Your task to perform on an android device: Search for Italian restaurants on Maps Image 0: 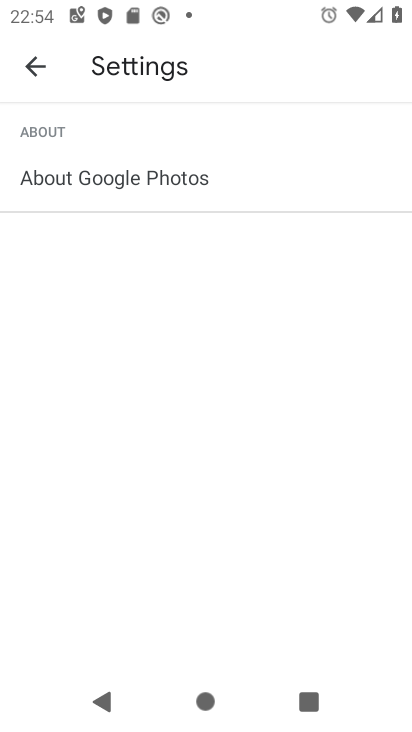
Step 0: press home button
Your task to perform on an android device: Search for Italian restaurants on Maps Image 1: 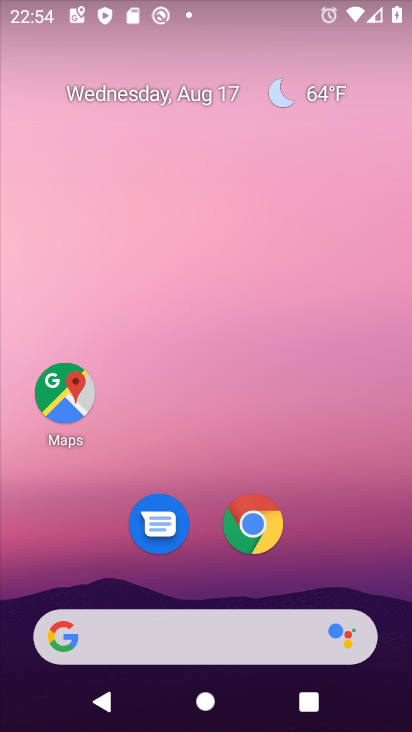
Step 1: click (51, 388)
Your task to perform on an android device: Search for Italian restaurants on Maps Image 2: 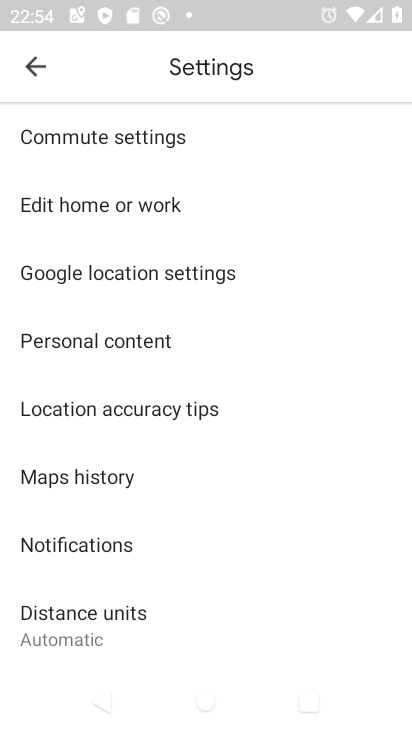
Step 2: click (37, 62)
Your task to perform on an android device: Search for Italian restaurants on Maps Image 3: 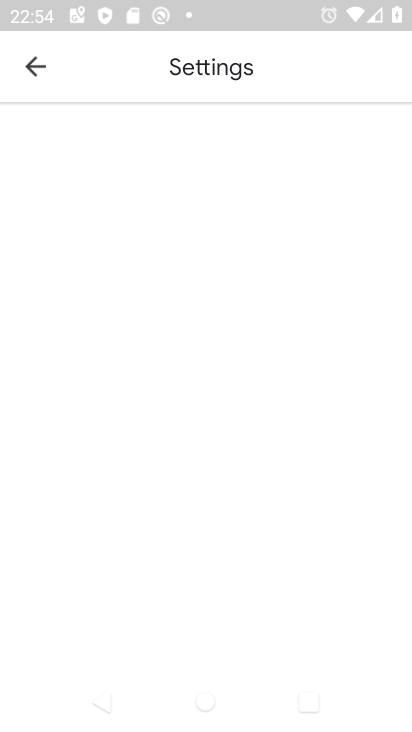
Step 3: click (37, 62)
Your task to perform on an android device: Search for Italian restaurants on Maps Image 4: 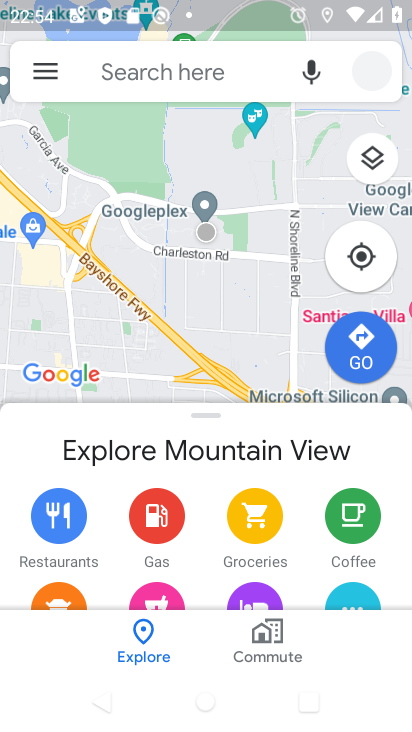
Step 4: click (101, 63)
Your task to perform on an android device: Search for Italian restaurants on Maps Image 5: 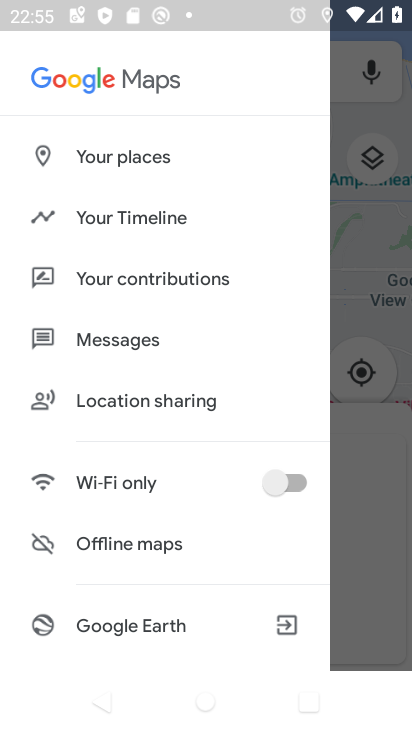
Step 5: click (398, 315)
Your task to perform on an android device: Search for Italian restaurants on Maps Image 6: 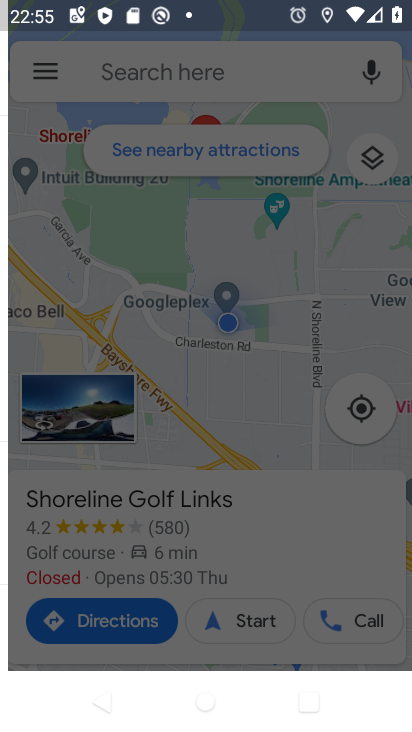
Step 6: click (382, 298)
Your task to perform on an android device: Search for Italian restaurants on Maps Image 7: 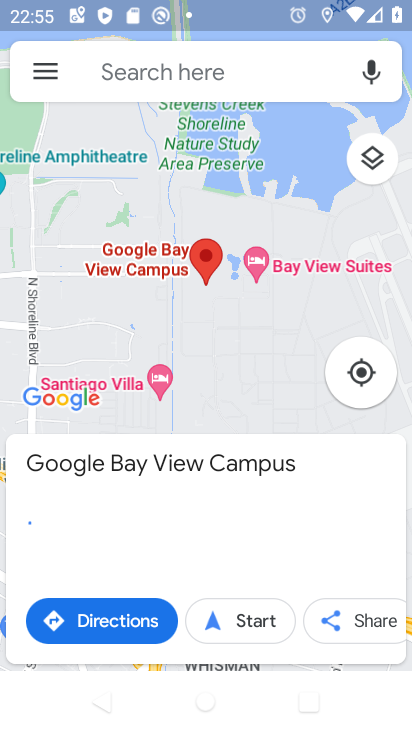
Step 7: click (98, 64)
Your task to perform on an android device: Search for Italian restaurants on Maps Image 8: 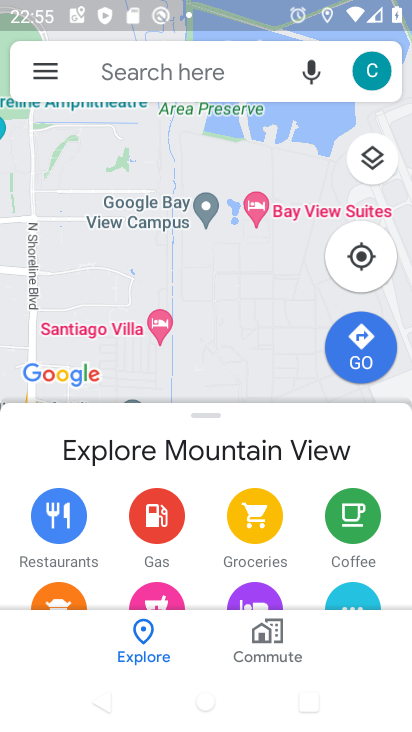
Step 8: click (139, 65)
Your task to perform on an android device: Search for Italian restaurants on Maps Image 9: 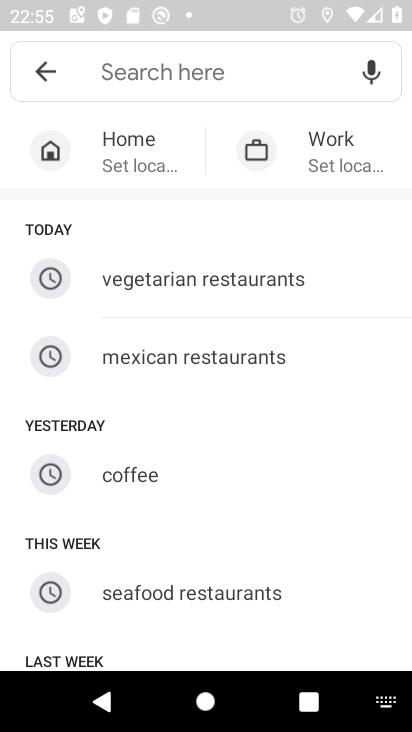
Step 9: drag from (252, 439) to (280, 173)
Your task to perform on an android device: Search for Italian restaurants on Maps Image 10: 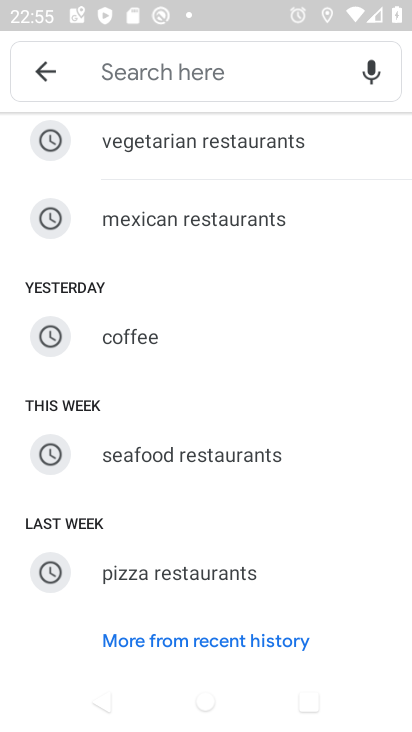
Step 10: click (256, 73)
Your task to perform on an android device: Search for Italian restaurants on Maps Image 11: 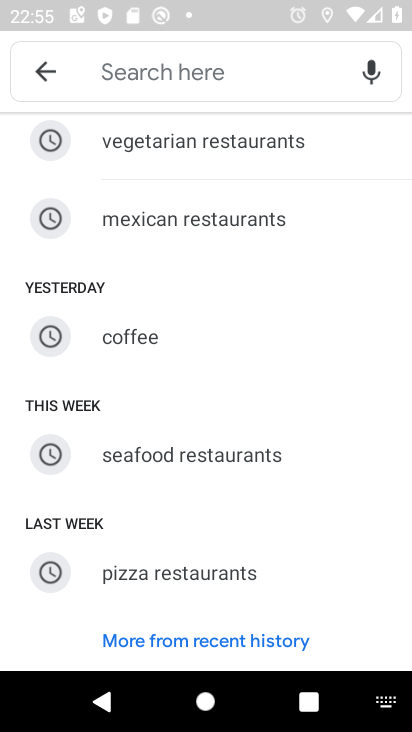
Step 11: type "italian restaurants"
Your task to perform on an android device: Search for Italian restaurants on Maps Image 12: 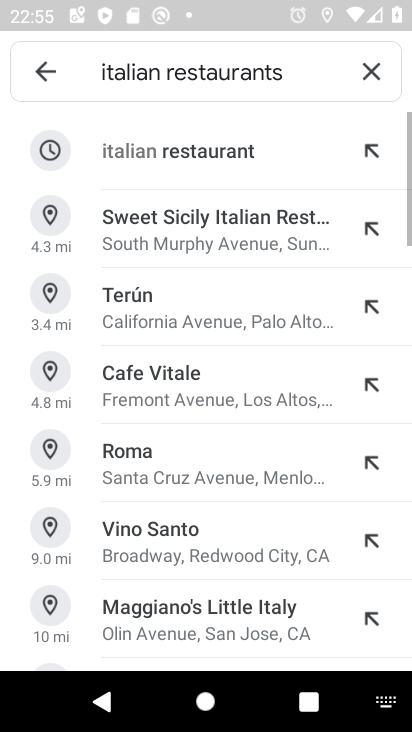
Step 12: click (208, 155)
Your task to perform on an android device: Search for Italian restaurants on Maps Image 13: 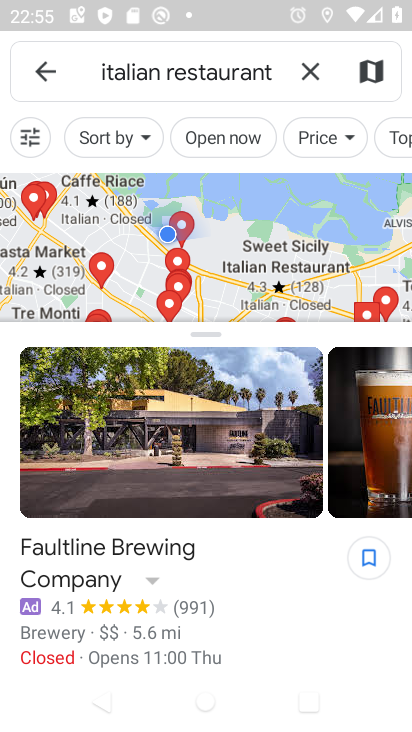
Step 13: task complete